Your task to perform on an android device: Open Maps and search for coffee Image 0: 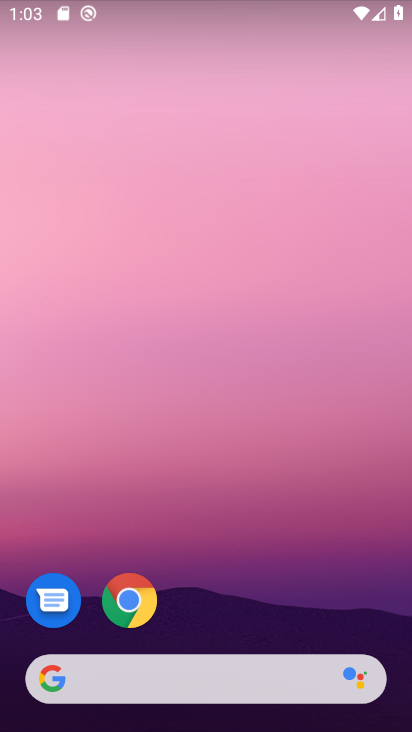
Step 0: click (57, 352)
Your task to perform on an android device: Open Maps and search for coffee Image 1: 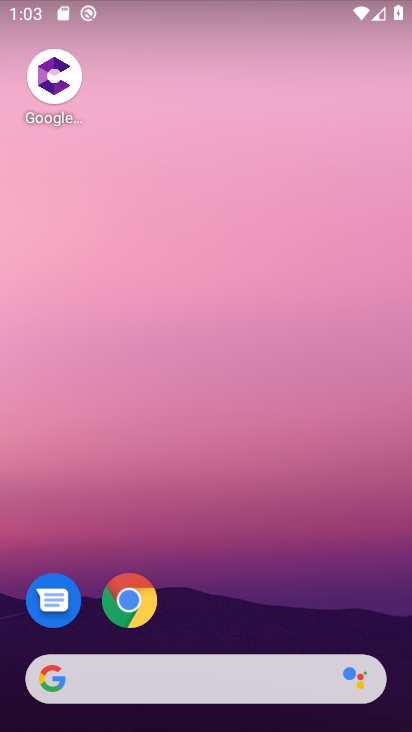
Step 1: drag from (220, 621) to (221, 161)
Your task to perform on an android device: Open Maps and search for coffee Image 2: 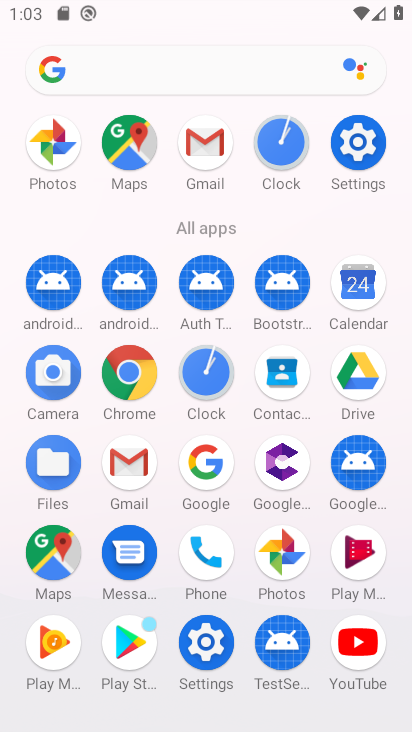
Step 2: click (127, 152)
Your task to perform on an android device: Open Maps and search for coffee Image 3: 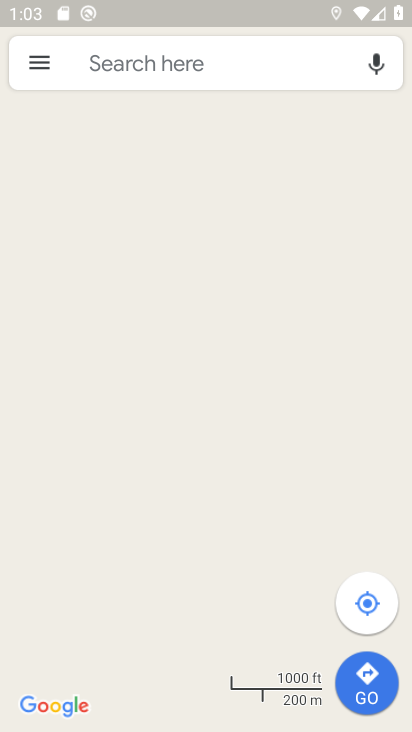
Step 3: click (161, 69)
Your task to perform on an android device: Open Maps and search for coffee Image 4: 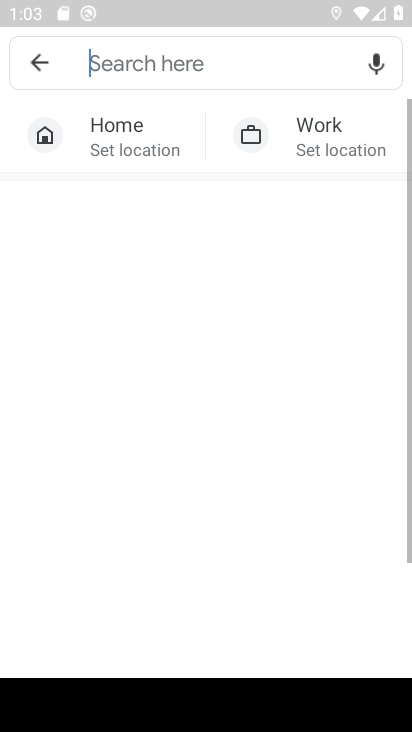
Step 4: type "coffee"
Your task to perform on an android device: Open Maps and search for coffee Image 5: 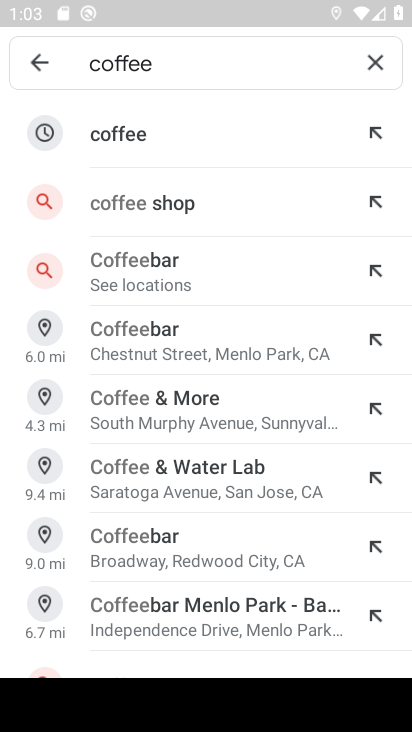
Step 5: click (113, 134)
Your task to perform on an android device: Open Maps and search for coffee Image 6: 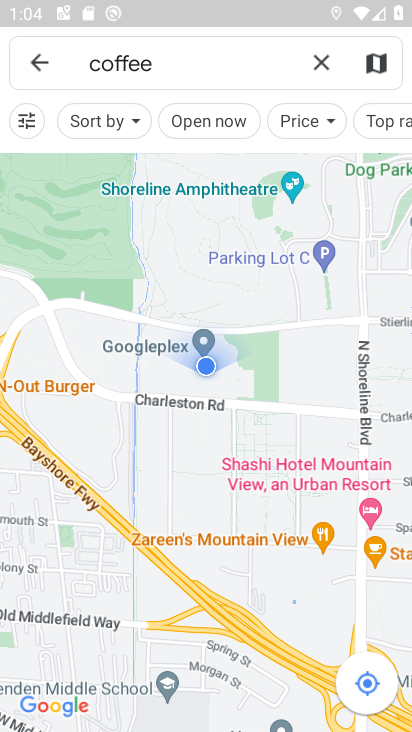
Step 6: task complete